Your task to perform on an android device: delete a single message in the gmail app Image 0: 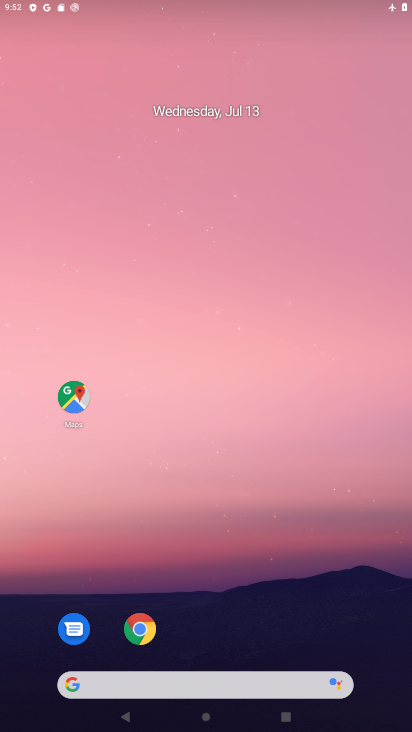
Step 0: drag from (263, 640) to (309, 129)
Your task to perform on an android device: delete a single message in the gmail app Image 1: 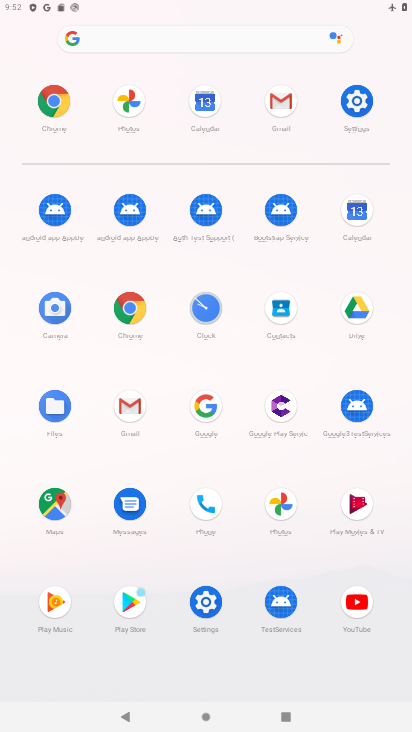
Step 1: click (262, 119)
Your task to perform on an android device: delete a single message in the gmail app Image 2: 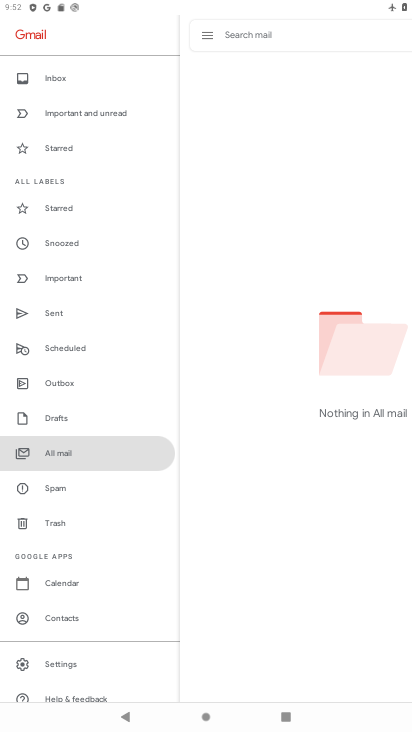
Step 2: click (103, 456)
Your task to perform on an android device: delete a single message in the gmail app Image 3: 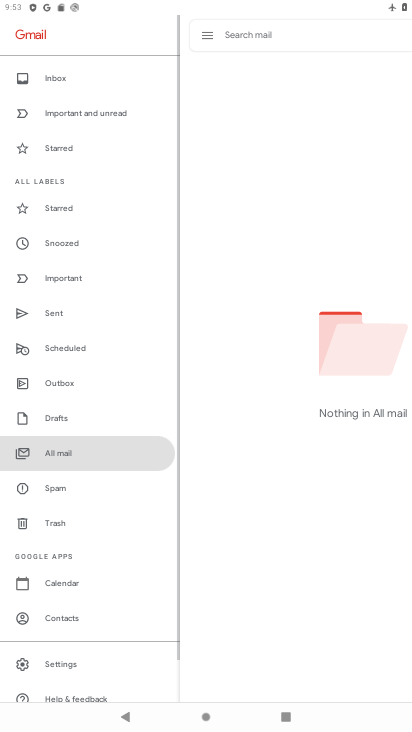
Step 3: task complete